Your task to perform on an android device: Search for "acer nitro" on ebay, select the first entry, and add it to the cart. Image 0: 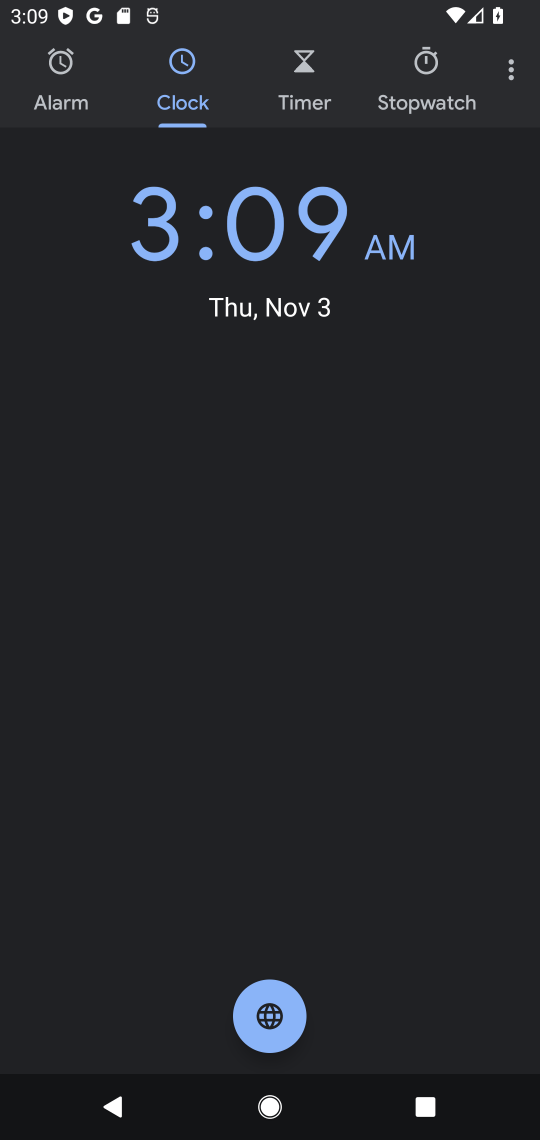
Step 0: press home button
Your task to perform on an android device: Search for "acer nitro" on ebay, select the first entry, and add it to the cart. Image 1: 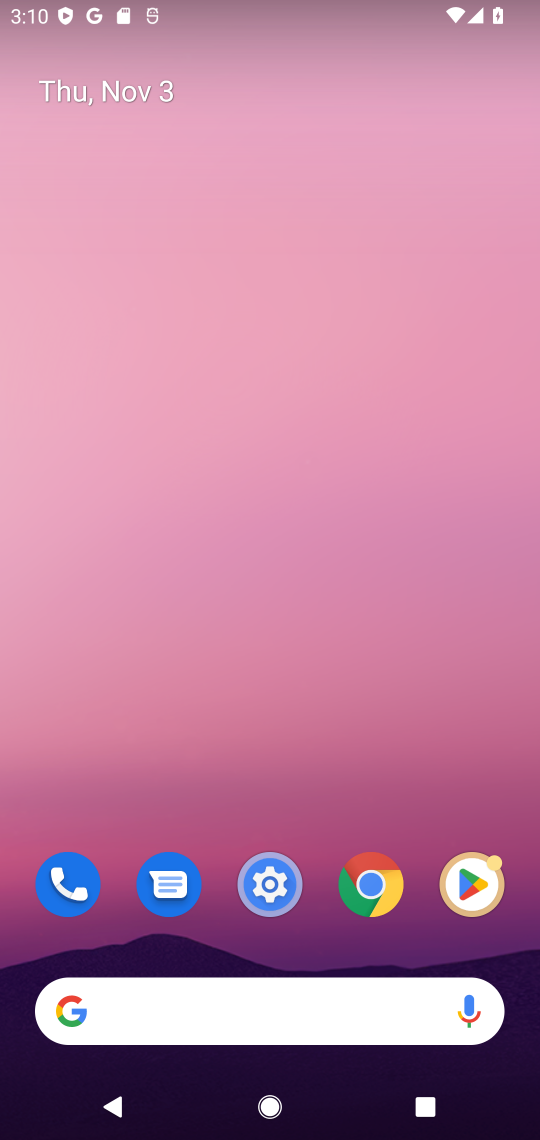
Step 1: click (139, 1009)
Your task to perform on an android device: Search for "acer nitro" on ebay, select the first entry, and add it to the cart. Image 2: 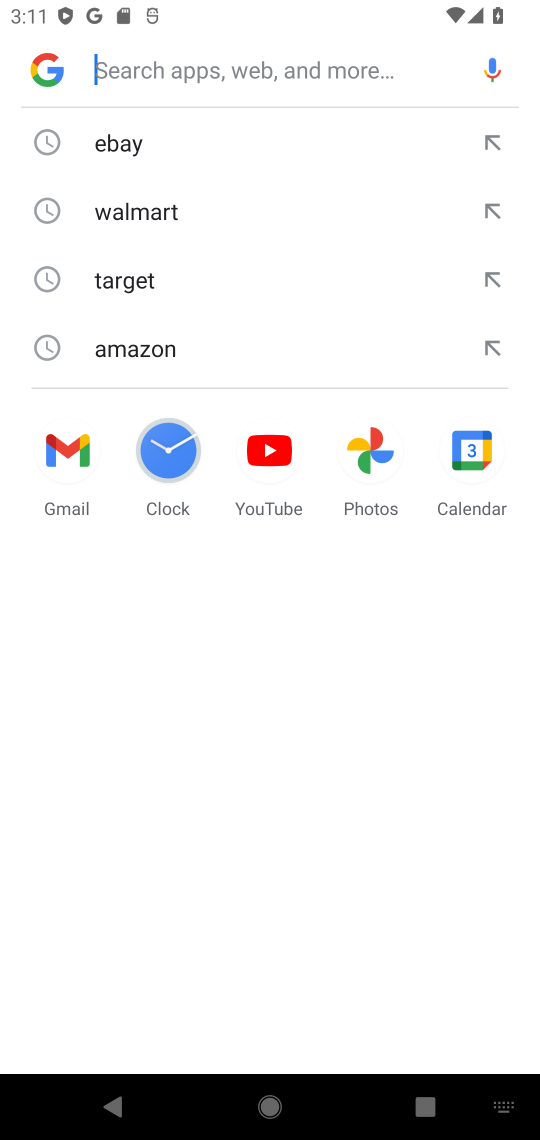
Step 2: type "ebay"
Your task to perform on an android device: Search for "acer nitro" on ebay, select the first entry, and add it to the cart. Image 3: 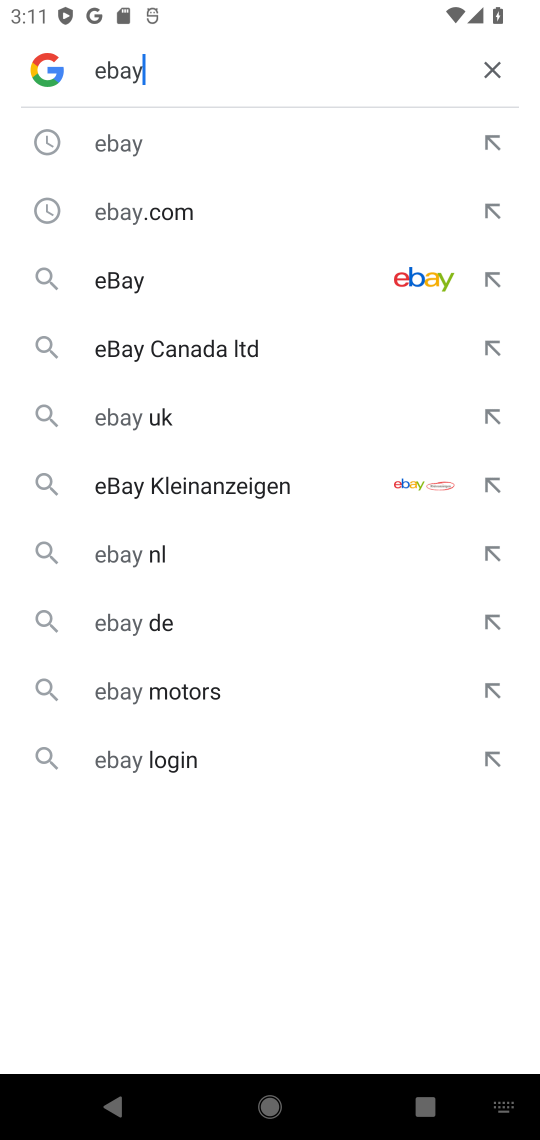
Step 3: press enter
Your task to perform on an android device: Search for "acer nitro" on ebay, select the first entry, and add it to the cart. Image 4: 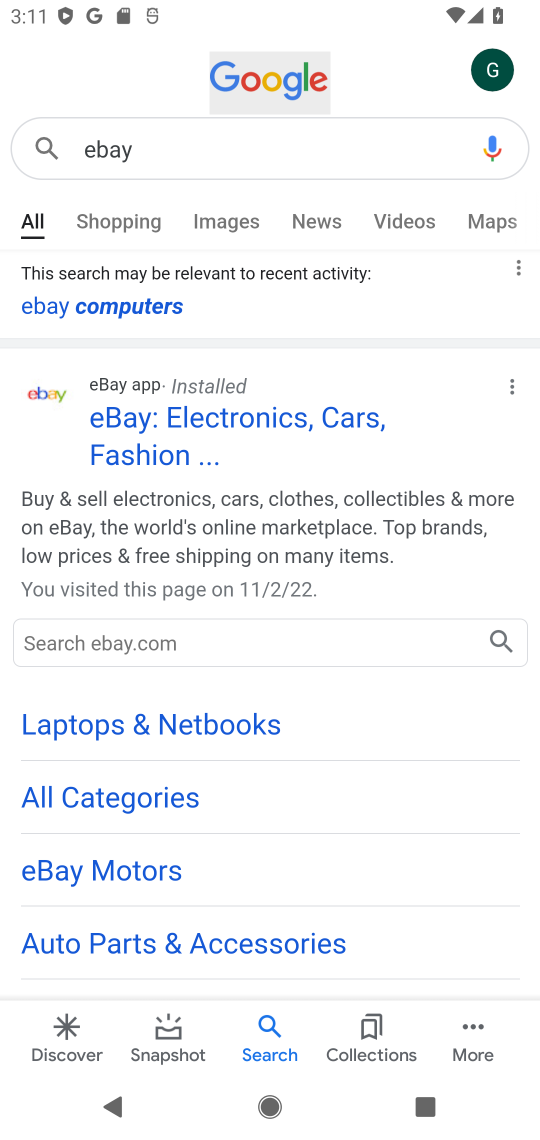
Step 4: click (185, 417)
Your task to perform on an android device: Search for "acer nitro" on ebay, select the first entry, and add it to the cart. Image 5: 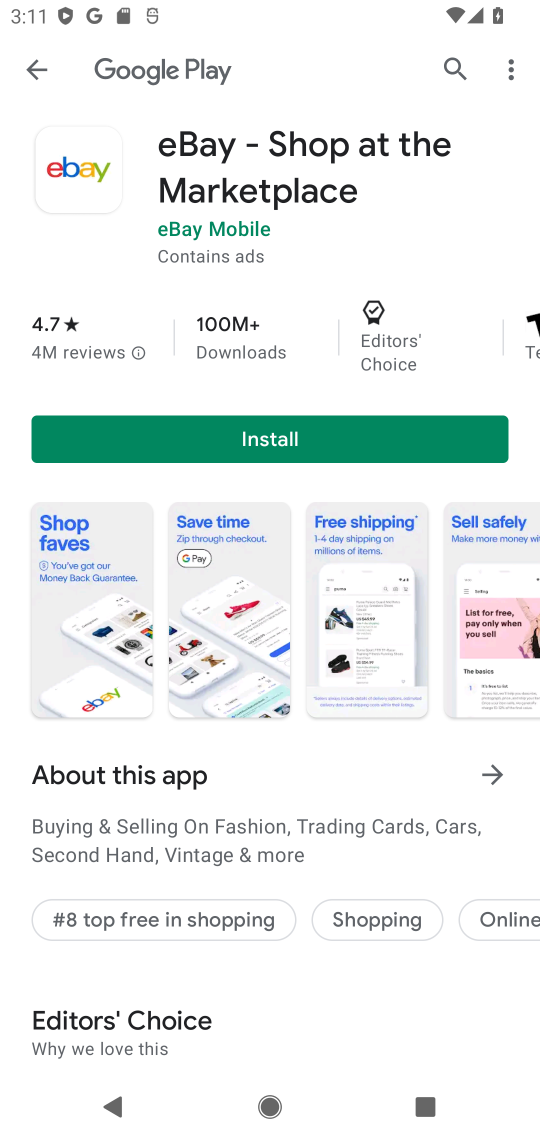
Step 5: press back button
Your task to perform on an android device: Search for "acer nitro" on ebay, select the first entry, and add it to the cart. Image 6: 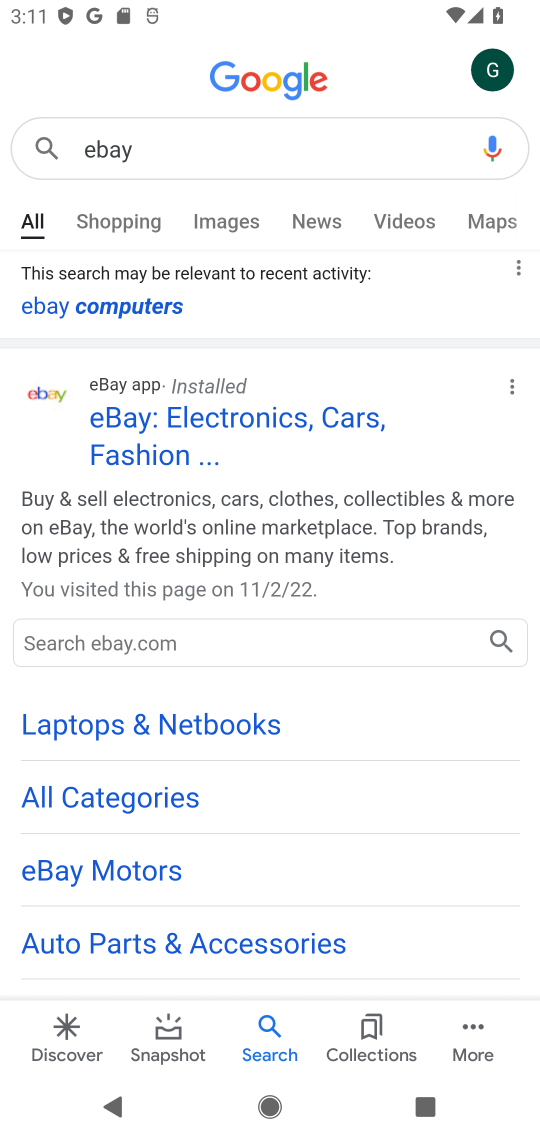
Step 6: drag from (351, 812) to (343, 276)
Your task to perform on an android device: Search for "acer nitro" on ebay, select the first entry, and add it to the cart. Image 7: 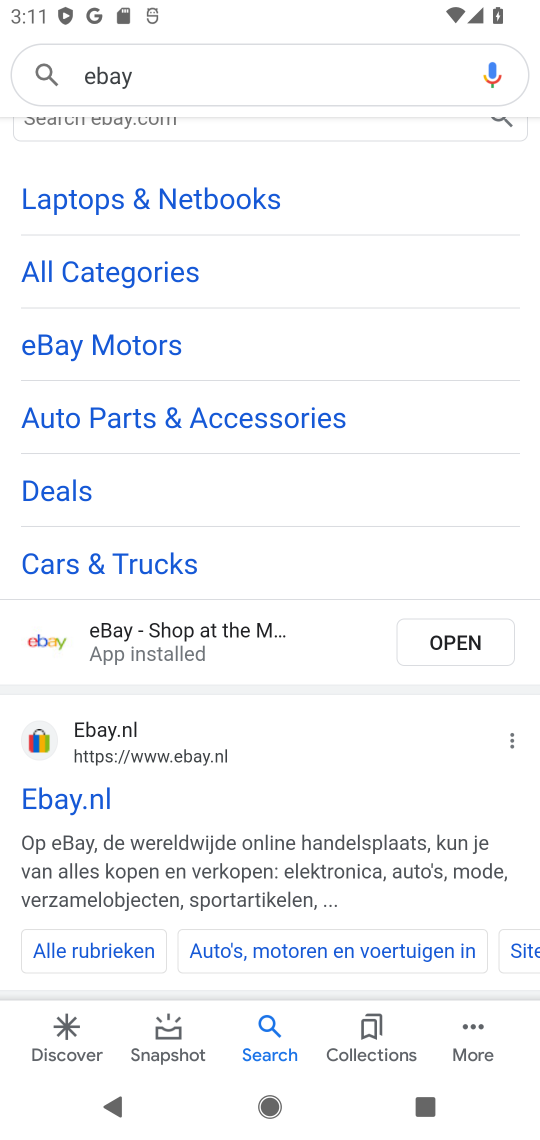
Step 7: drag from (218, 795) to (289, 294)
Your task to perform on an android device: Search for "acer nitro" on ebay, select the first entry, and add it to the cart. Image 8: 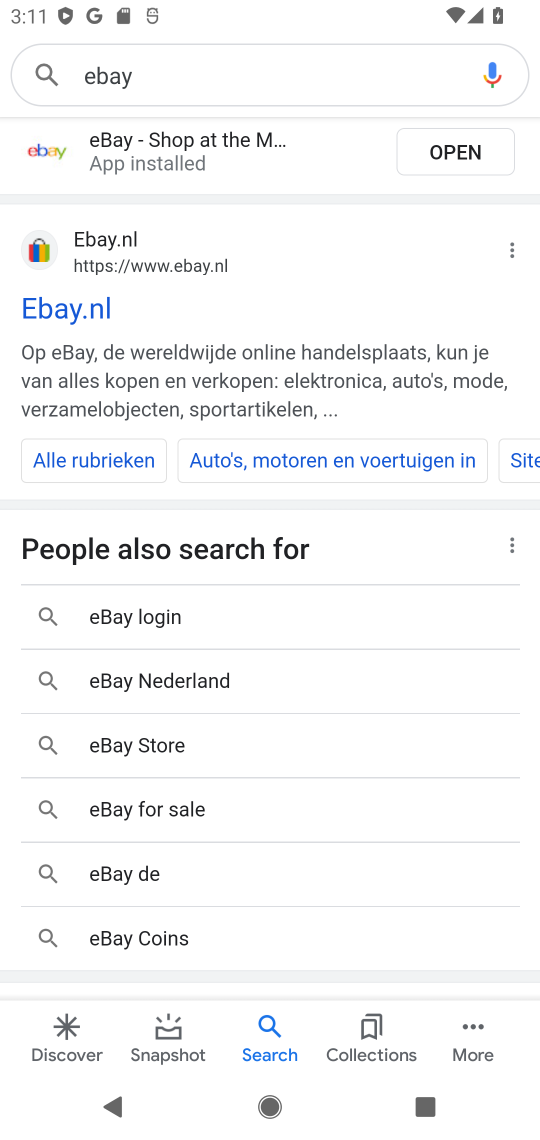
Step 8: drag from (273, 843) to (329, 299)
Your task to perform on an android device: Search for "acer nitro" on ebay, select the first entry, and add it to the cart. Image 9: 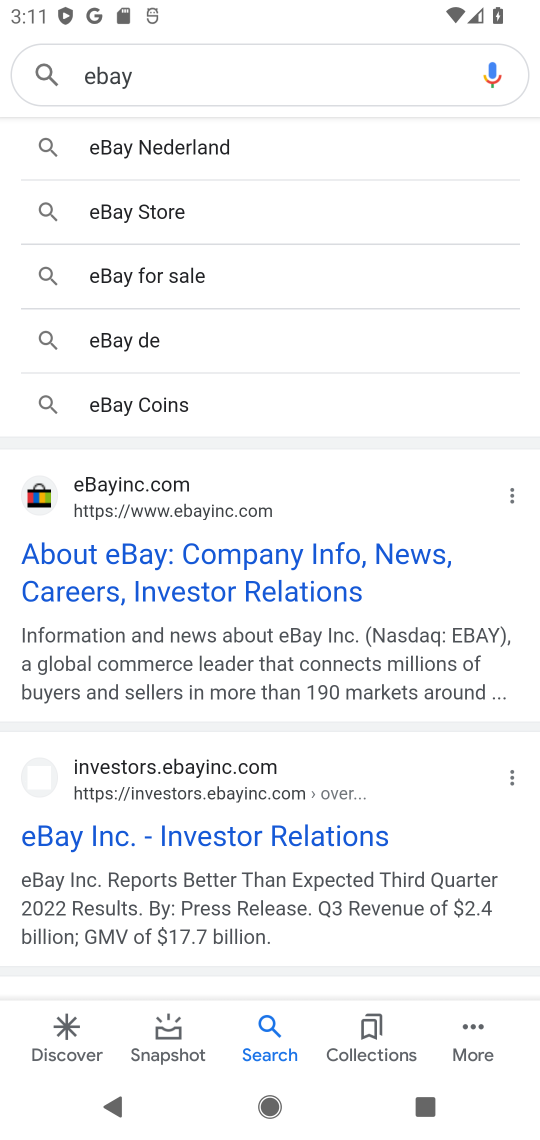
Step 9: click (155, 579)
Your task to perform on an android device: Search for "acer nitro" on ebay, select the first entry, and add it to the cart. Image 10: 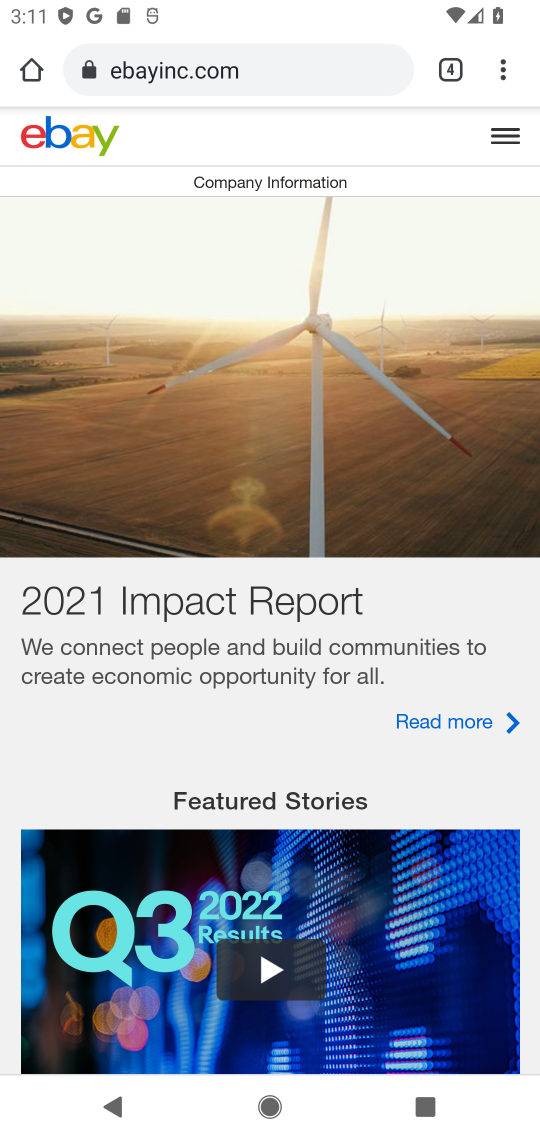
Step 10: press back button
Your task to perform on an android device: Search for "acer nitro" on ebay, select the first entry, and add it to the cart. Image 11: 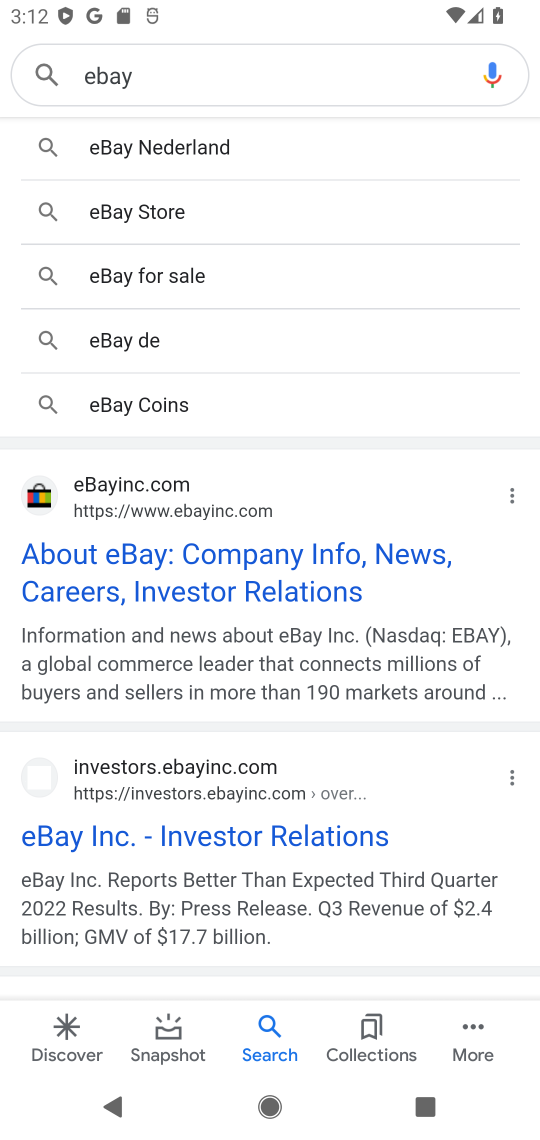
Step 11: click (234, 835)
Your task to perform on an android device: Search for "acer nitro" on ebay, select the first entry, and add it to the cart. Image 12: 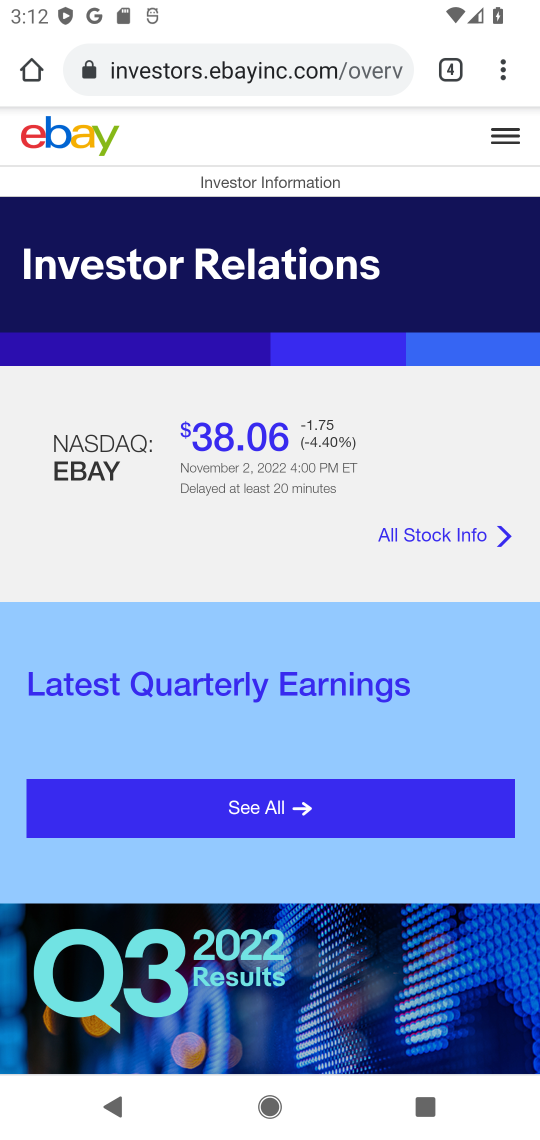
Step 12: task complete